Your task to perform on an android device: Open calendar and show me the fourth week of next month Image 0: 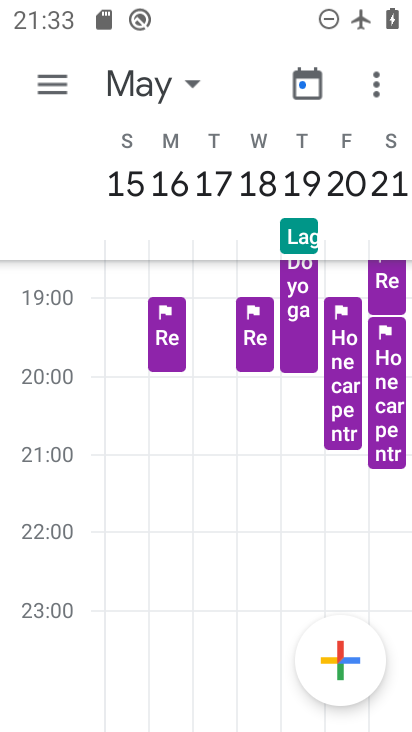
Step 0: drag from (397, 177) to (26, 112)
Your task to perform on an android device: Open calendar and show me the fourth week of next month Image 1: 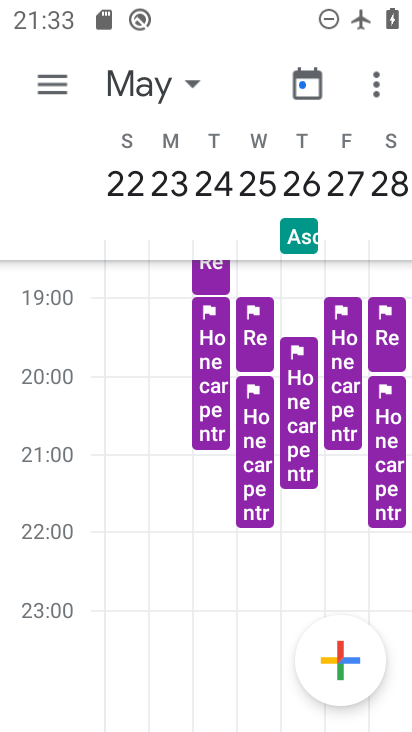
Step 1: task complete